Your task to perform on an android device: Go to Android settings Image 0: 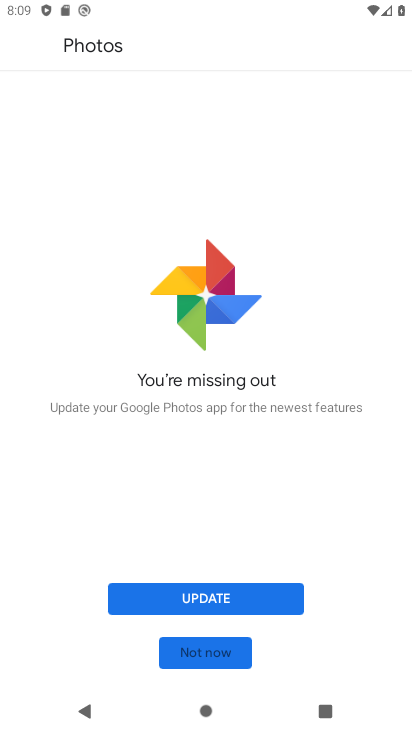
Step 0: press home button
Your task to perform on an android device: Go to Android settings Image 1: 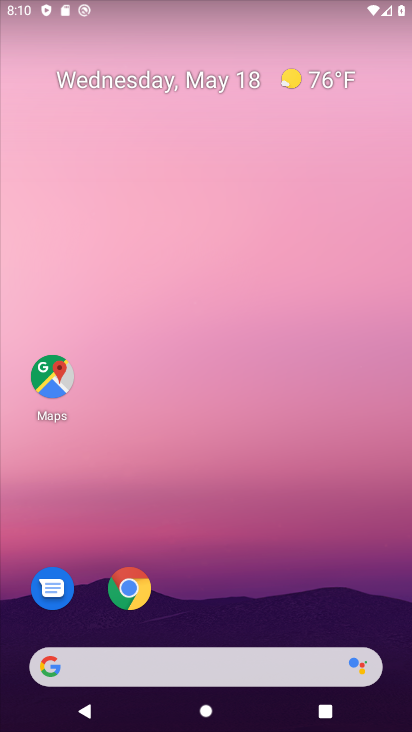
Step 1: drag from (295, 626) to (386, 2)
Your task to perform on an android device: Go to Android settings Image 2: 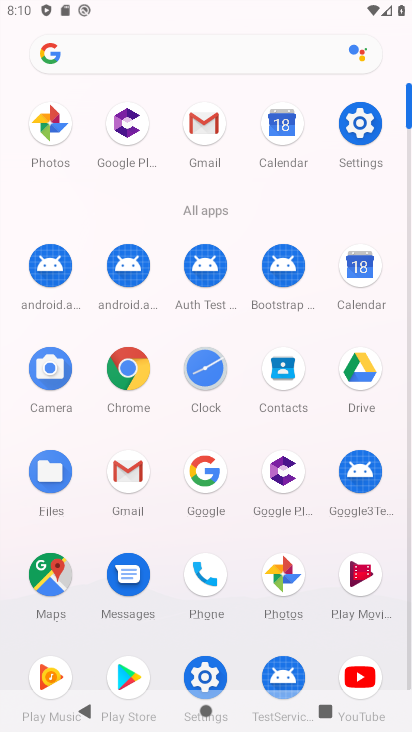
Step 2: click (354, 153)
Your task to perform on an android device: Go to Android settings Image 3: 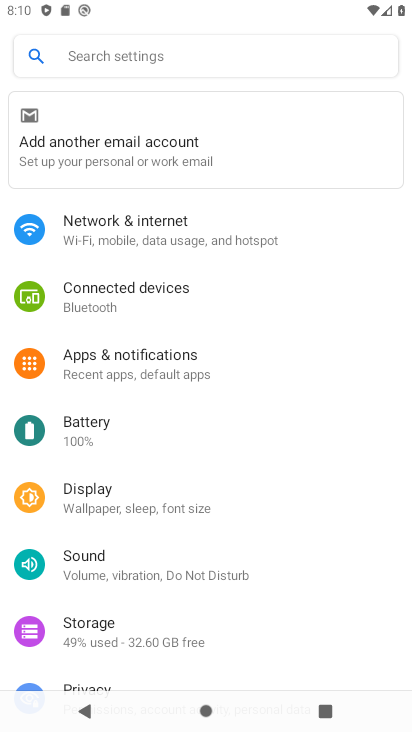
Step 3: drag from (93, 582) to (250, 162)
Your task to perform on an android device: Go to Android settings Image 4: 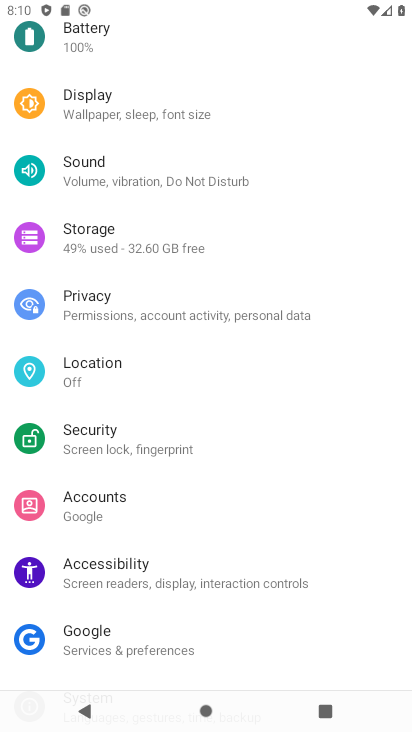
Step 4: drag from (200, 615) to (323, 126)
Your task to perform on an android device: Go to Android settings Image 5: 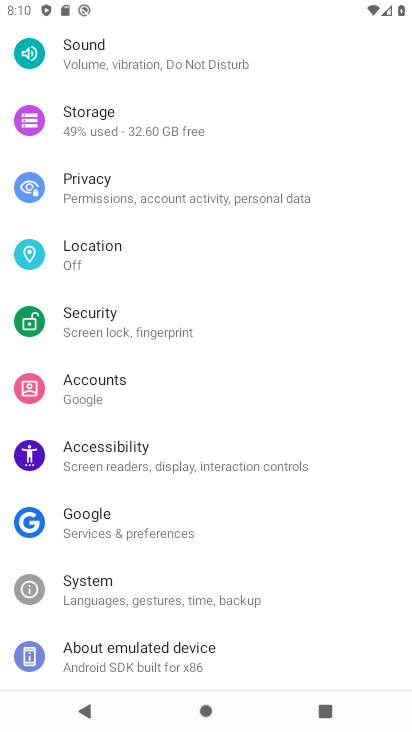
Step 5: click (251, 640)
Your task to perform on an android device: Go to Android settings Image 6: 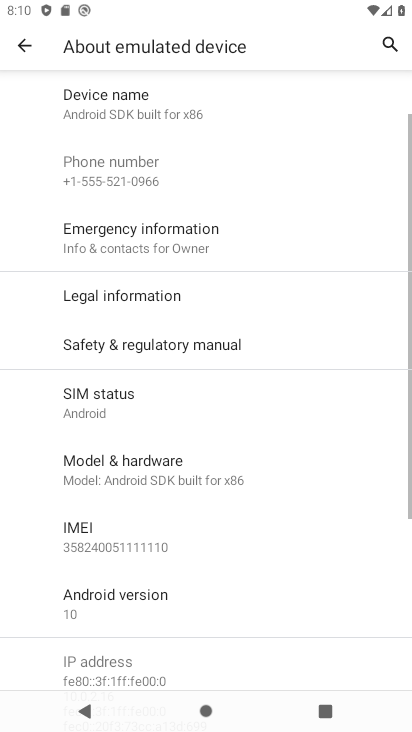
Step 6: task complete